Your task to perform on an android device: Search for Mexican restaurants on Maps Image 0: 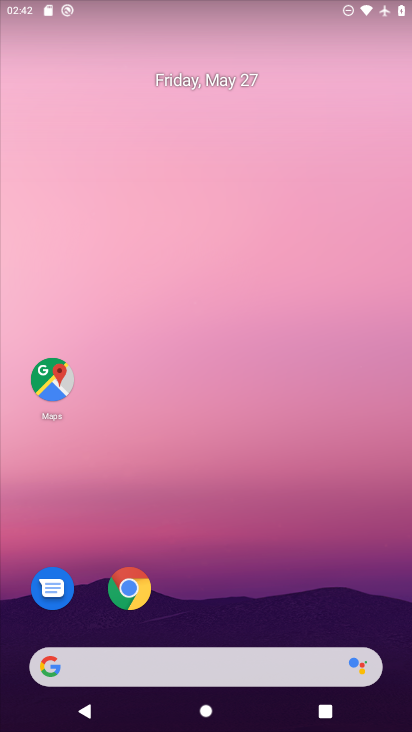
Step 0: click (51, 379)
Your task to perform on an android device: Search for Mexican restaurants on Maps Image 1: 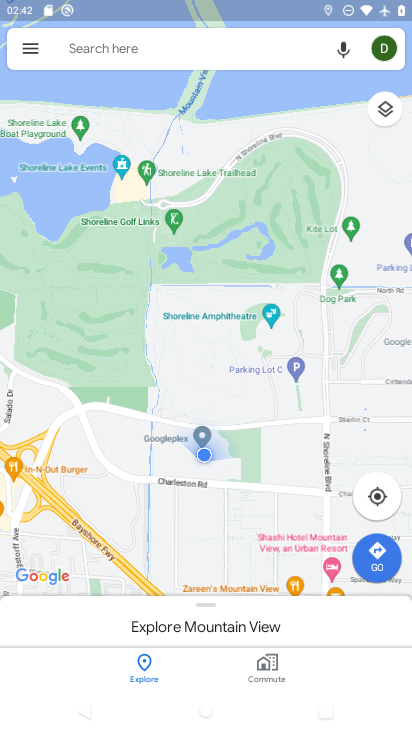
Step 1: click (118, 47)
Your task to perform on an android device: Search for Mexican restaurants on Maps Image 2: 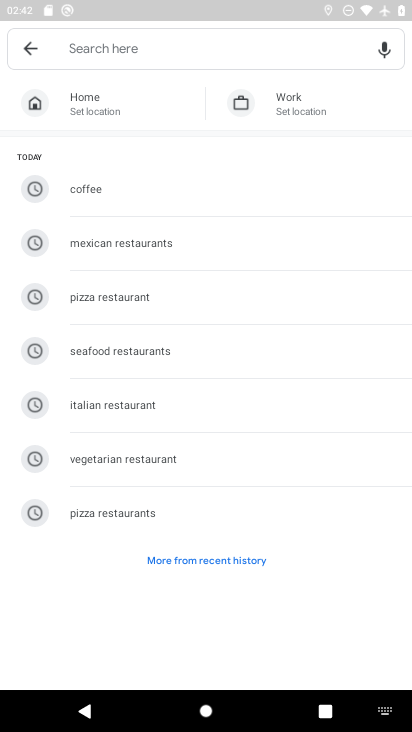
Step 2: type "mexican restaurants"
Your task to perform on an android device: Search for Mexican restaurants on Maps Image 3: 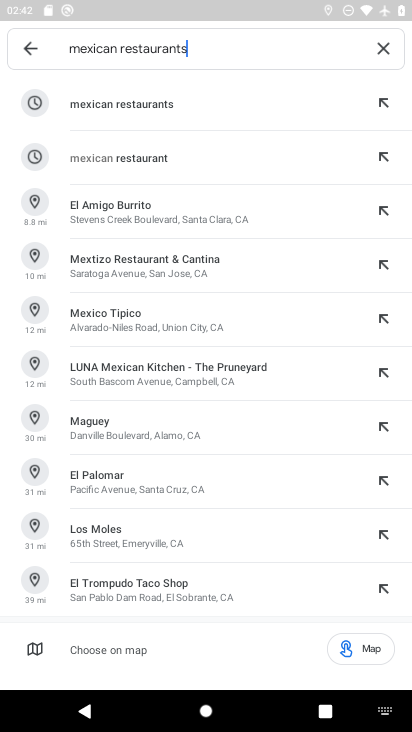
Step 3: click (130, 112)
Your task to perform on an android device: Search for Mexican restaurants on Maps Image 4: 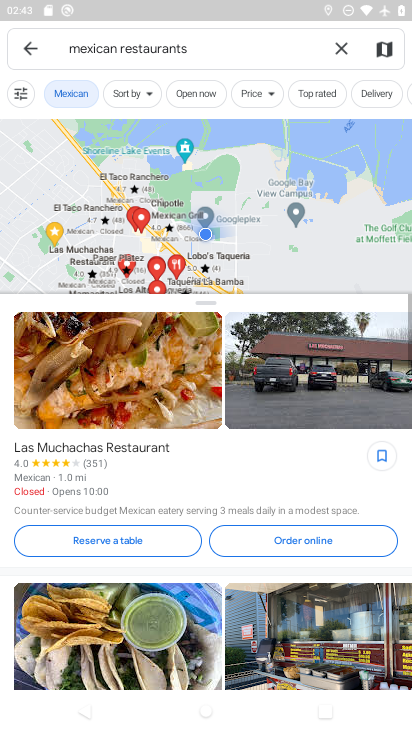
Step 4: task complete